Your task to perform on an android device: When is my next appointment? Image 0: 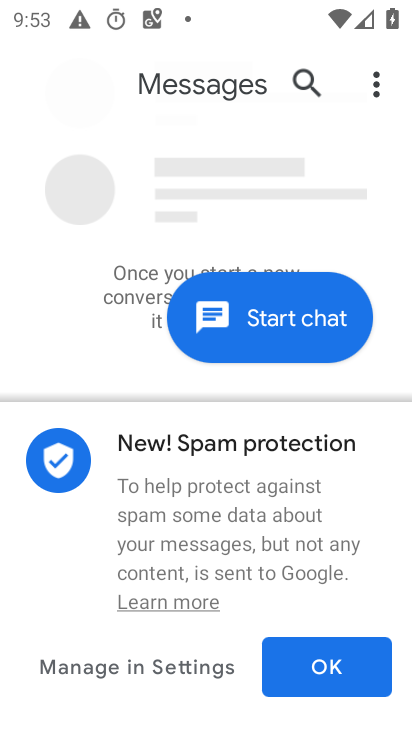
Step 0: press home button
Your task to perform on an android device: When is my next appointment? Image 1: 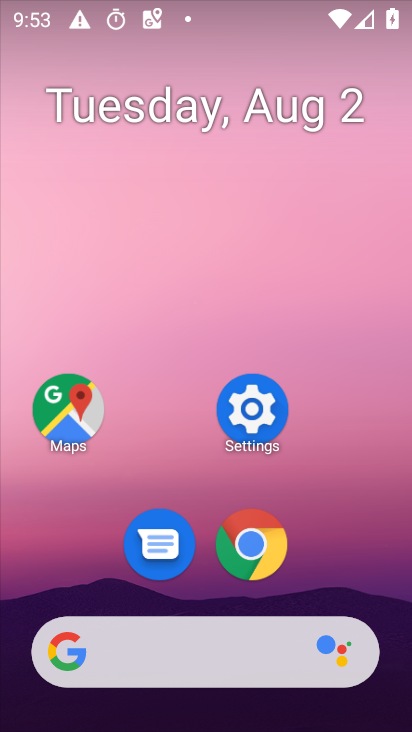
Step 1: drag from (217, 652) to (311, 206)
Your task to perform on an android device: When is my next appointment? Image 2: 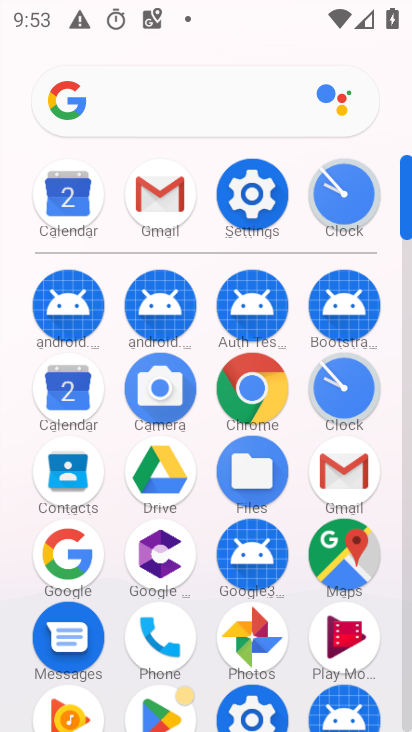
Step 2: click (67, 397)
Your task to perform on an android device: When is my next appointment? Image 3: 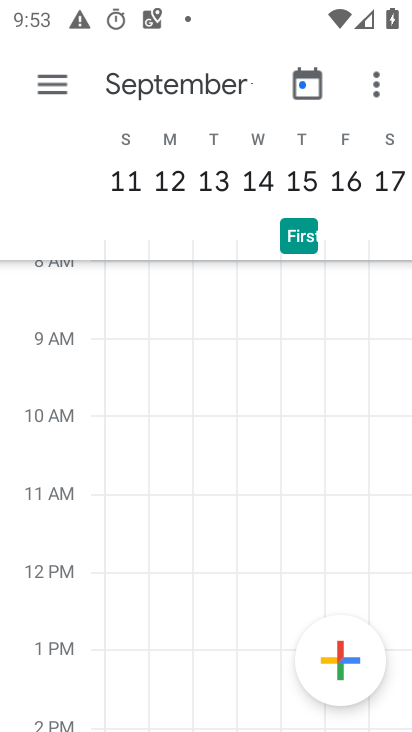
Step 3: click (159, 84)
Your task to perform on an android device: When is my next appointment? Image 4: 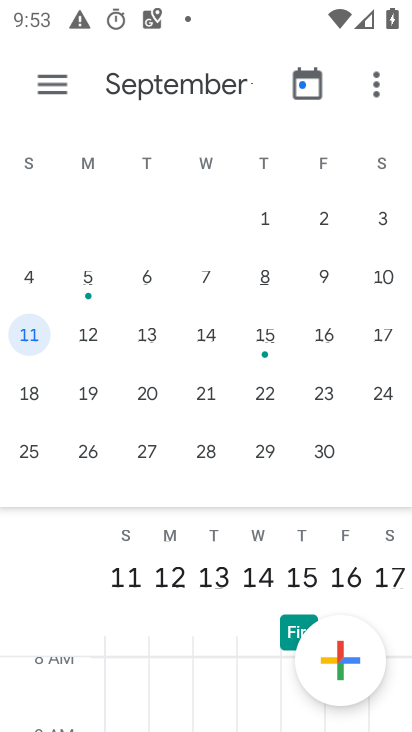
Step 4: drag from (50, 396) to (411, 389)
Your task to perform on an android device: When is my next appointment? Image 5: 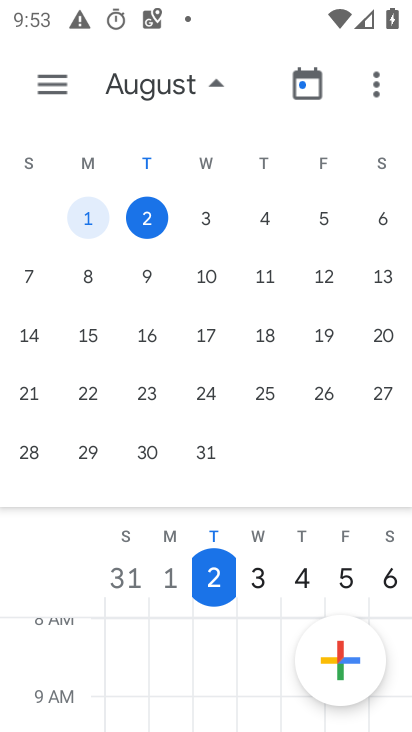
Step 5: click (160, 219)
Your task to perform on an android device: When is my next appointment? Image 6: 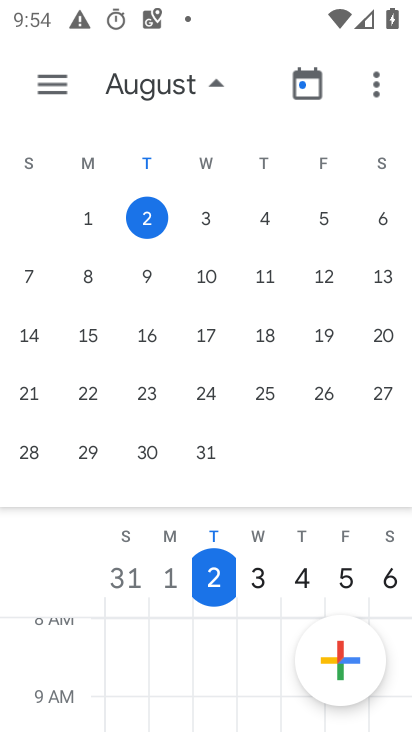
Step 6: click (48, 74)
Your task to perform on an android device: When is my next appointment? Image 7: 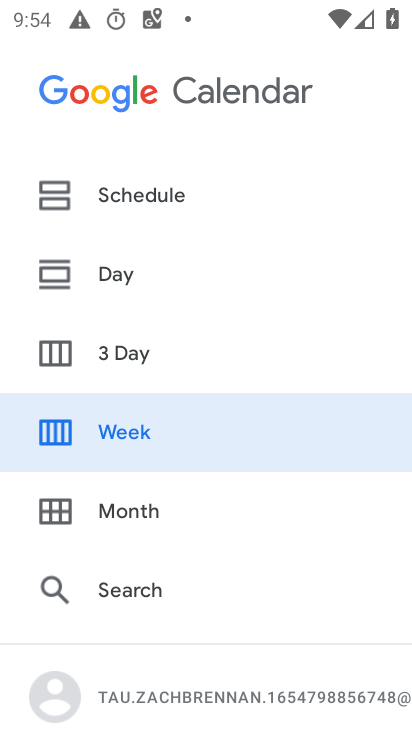
Step 7: click (125, 437)
Your task to perform on an android device: When is my next appointment? Image 8: 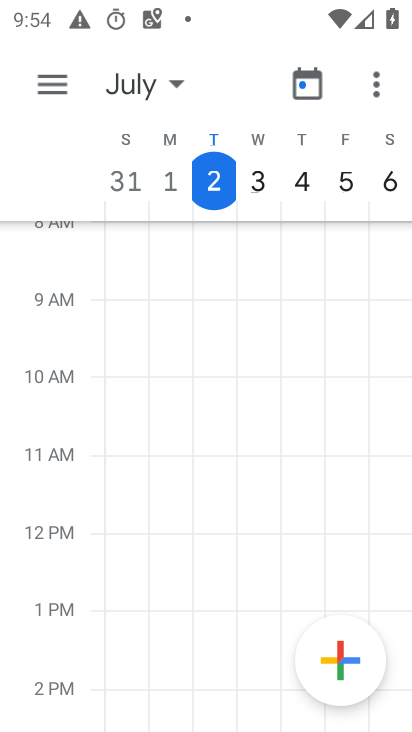
Step 8: task complete